Your task to perform on an android device: open a bookmark in the chrome app Image 0: 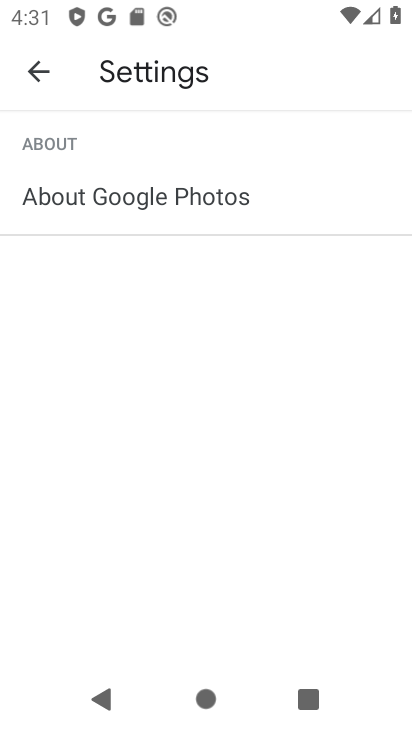
Step 0: press home button
Your task to perform on an android device: open a bookmark in the chrome app Image 1: 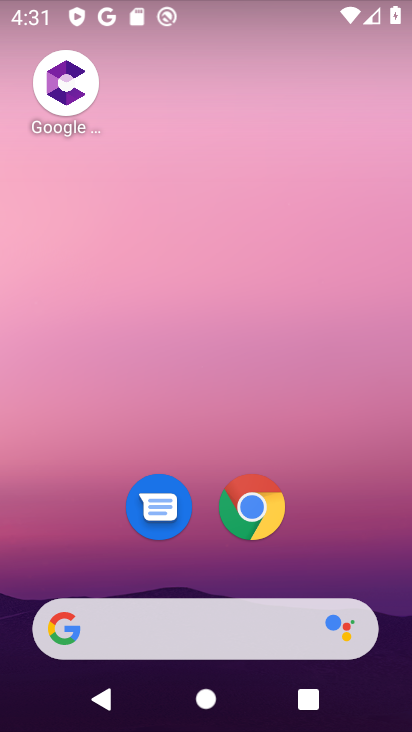
Step 1: drag from (347, 553) to (357, 38)
Your task to perform on an android device: open a bookmark in the chrome app Image 2: 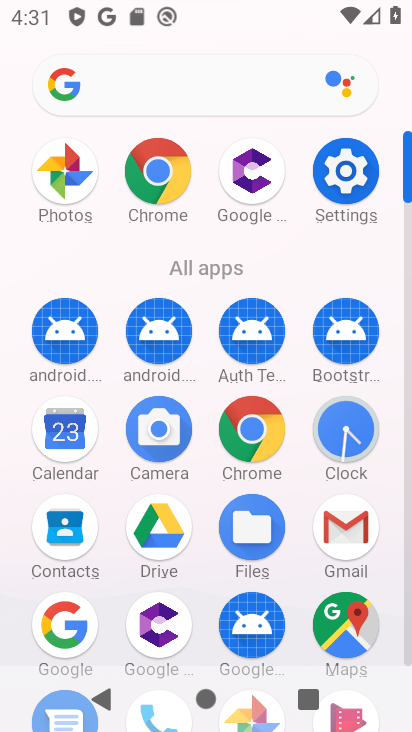
Step 2: click (150, 207)
Your task to perform on an android device: open a bookmark in the chrome app Image 3: 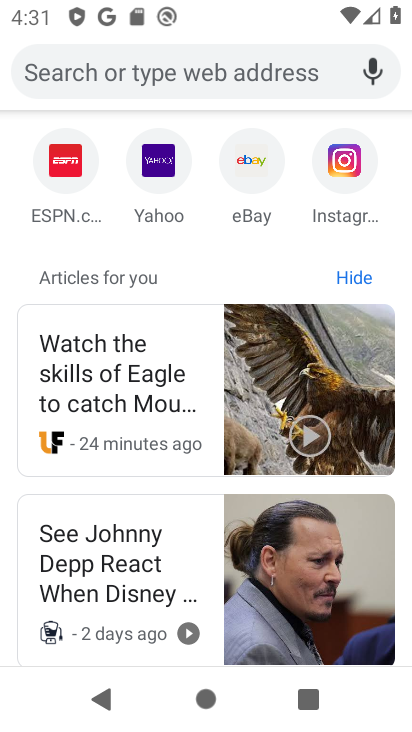
Step 3: drag from (284, 363) to (289, 683)
Your task to perform on an android device: open a bookmark in the chrome app Image 4: 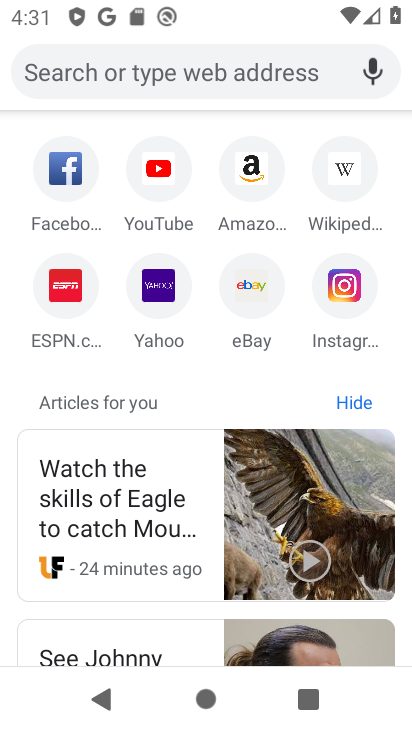
Step 4: drag from (105, 299) to (176, 722)
Your task to perform on an android device: open a bookmark in the chrome app Image 5: 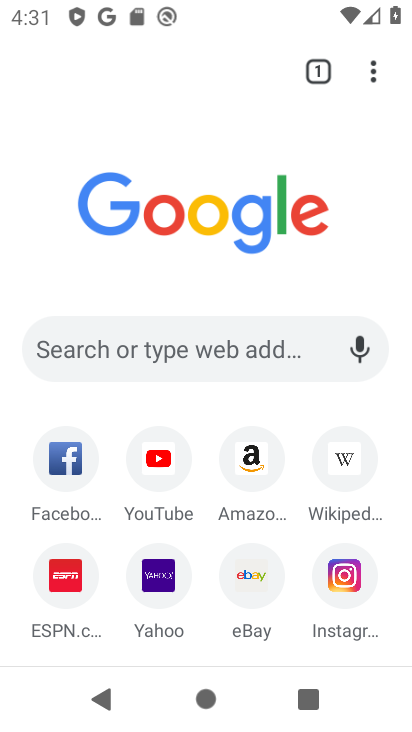
Step 5: drag from (374, 84) to (154, 255)
Your task to perform on an android device: open a bookmark in the chrome app Image 6: 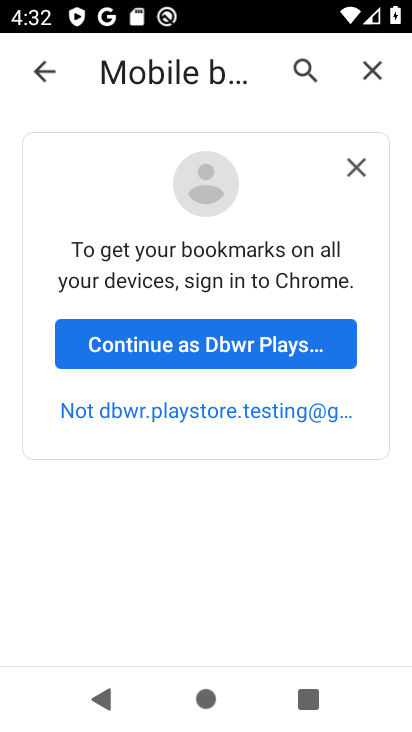
Step 6: drag from (234, 554) to (232, 364)
Your task to perform on an android device: open a bookmark in the chrome app Image 7: 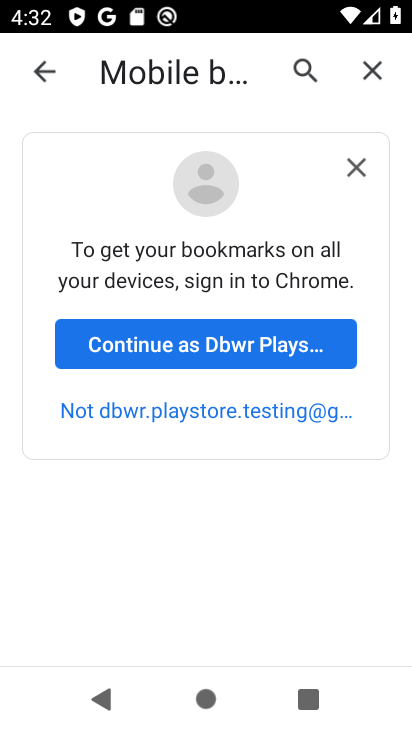
Step 7: click (236, 344)
Your task to perform on an android device: open a bookmark in the chrome app Image 8: 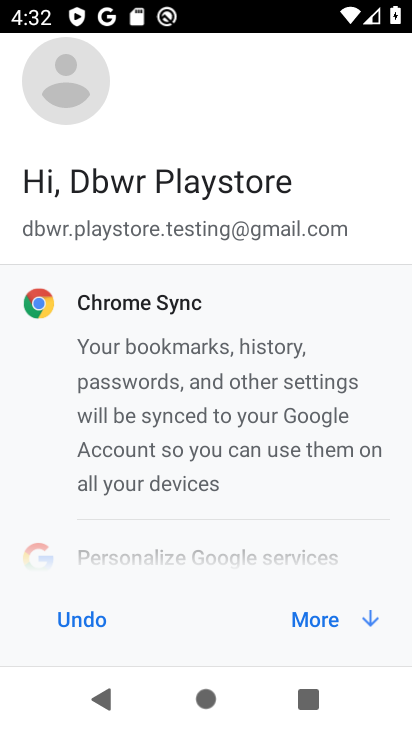
Step 8: click (307, 637)
Your task to perform on an android device: open a bookmark in the chrome app Image 9: 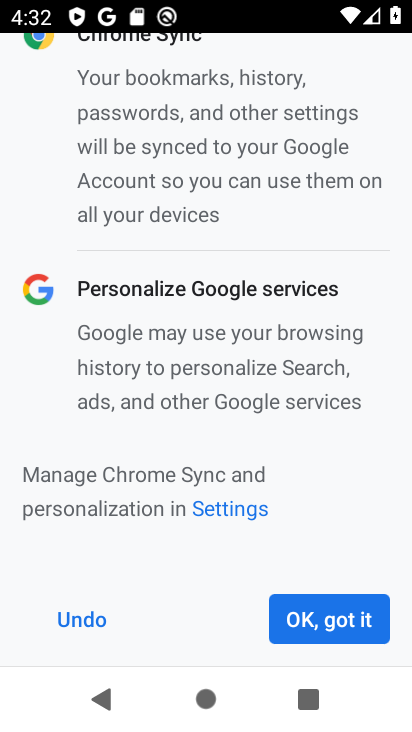
Step 9: click (308, 635)
Your task to perform on an android device: open a bookmark in the chrome app Image 10: 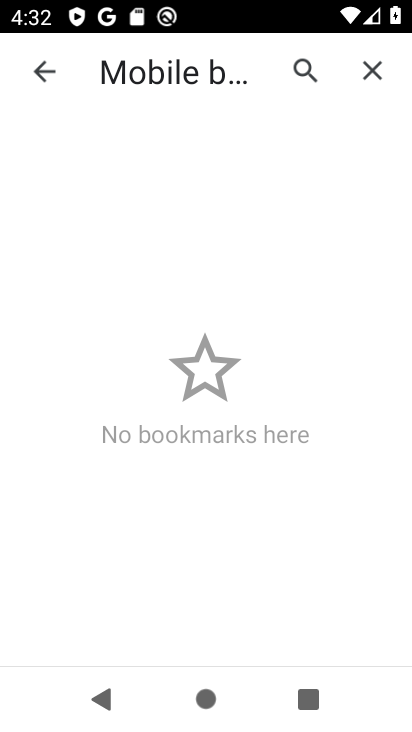
Step 10: task complete